Your task to perform on an android device: Open the map Image 0: 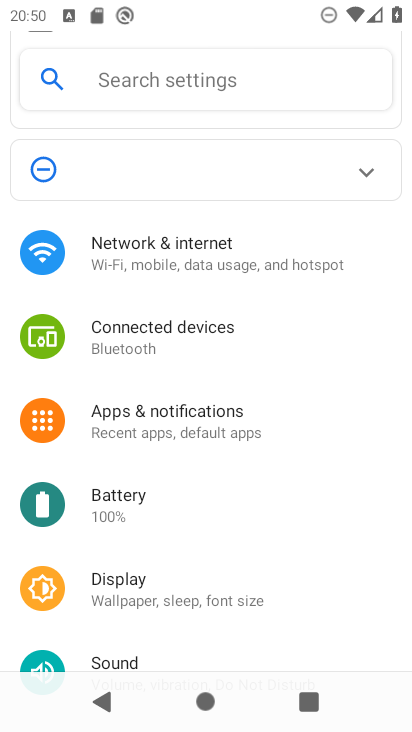
Step 0: press home button
Your task to perform on an android device: Open the map Image 1: 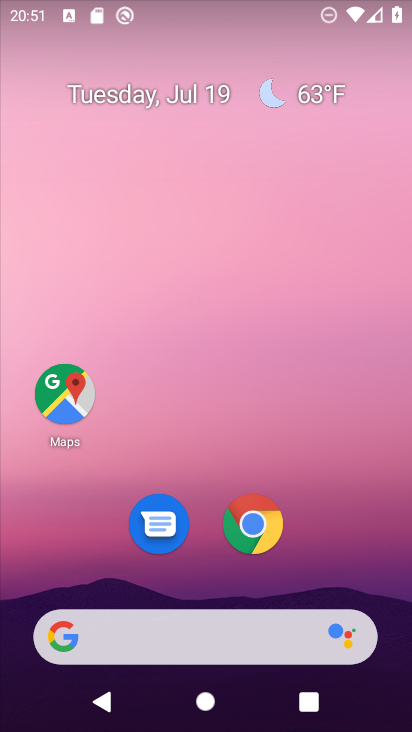
Step 1: click (73, 416)
Your task to perform on an android device: Open the map Image 2: 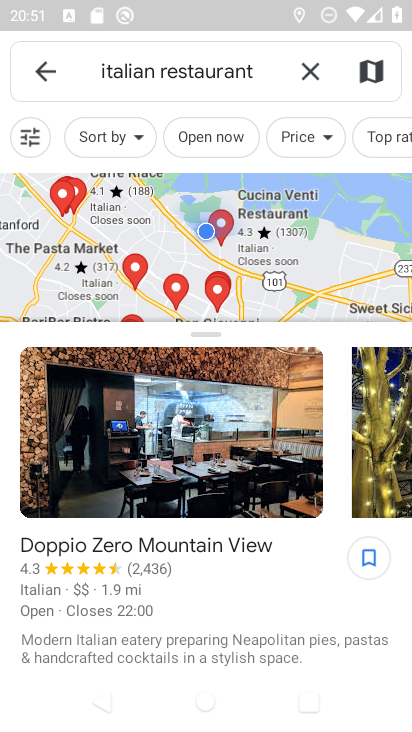
Step 2: click (307, 67)
Your task to perform on an android device: Open the map Image 3: 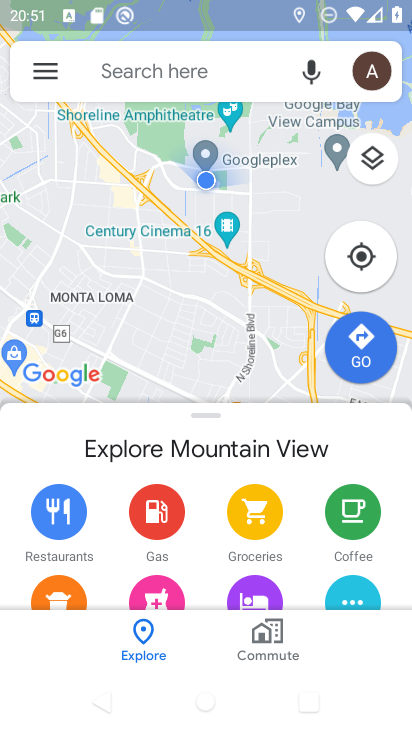
Step 3: task complete